Your task to perform on an android device: Open Google Chrome Image 0: 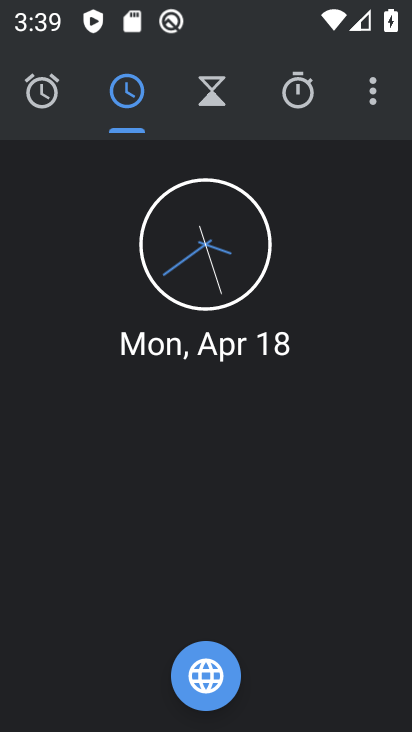
Step 0: press home button
Your task to perform on an android device: Open Google Chrome Image 1: 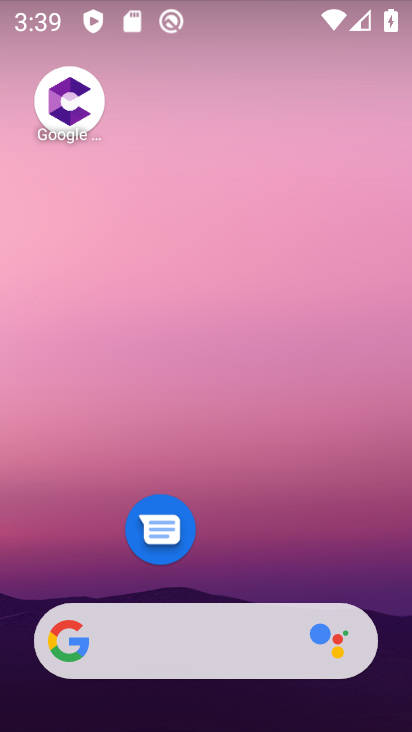
Step 1: drag from (215, 578) to (210, 118)
Your task to perform on an android device: Open Google Chrome Image 2: 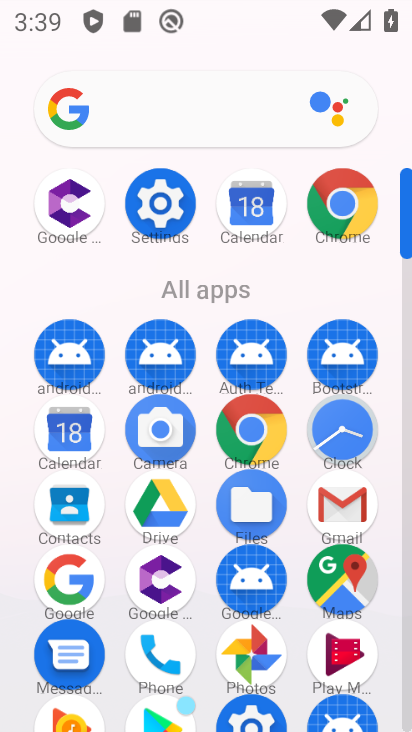
Step 2: click (313, 194)
Your task to perform on an android device: Open Google Chrome Image 3: 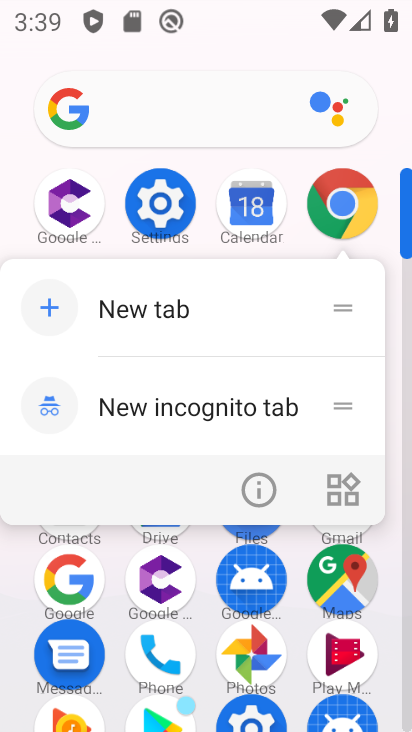
Step 3: click (340, 196)
Your task to perform on an android device: Open Google Chrome Image 4: 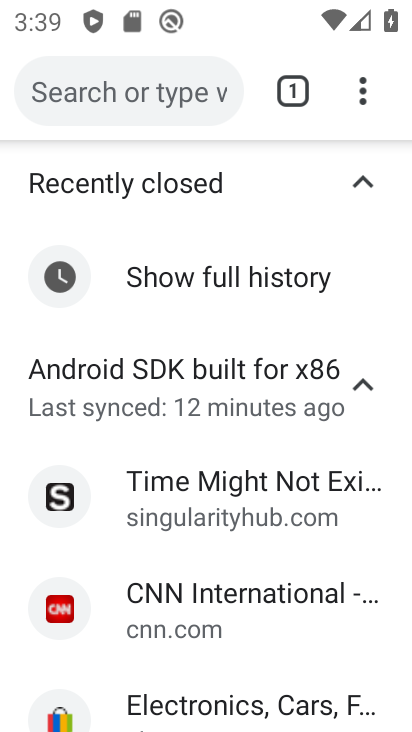
Step 4: drag from (270, 579) to (256, 278)
Your task to perform on an android device: Open Google Chrome Image 5: 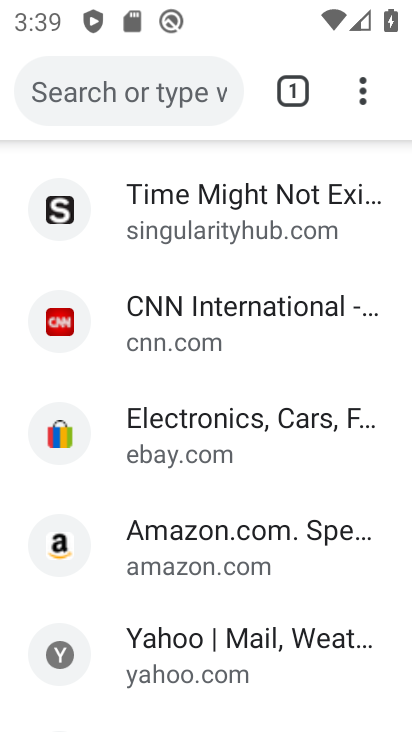
Step 5: click (358, 88)
Your task to perform on an android device: Open Google Chrome Image 6: 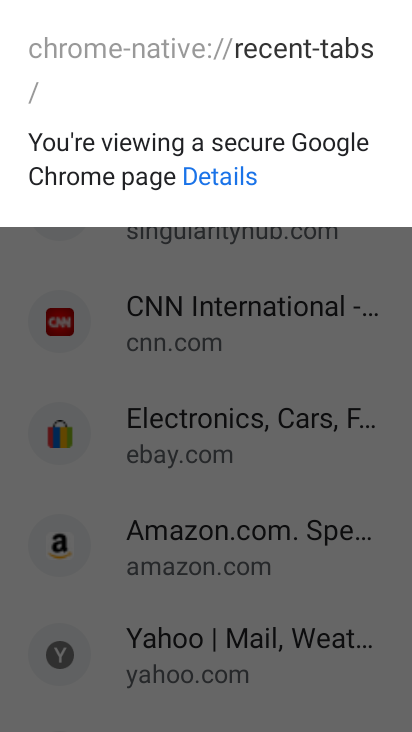
Step 6: task complete